Your task to perform on an android device: Do I have any events tomorrow? Image 0: 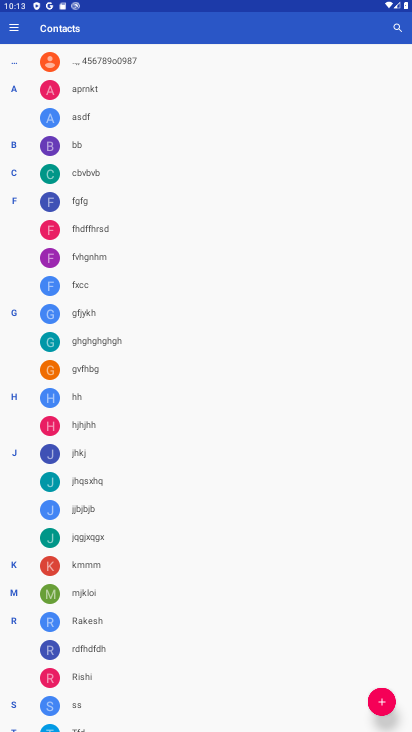
Step 0: press home button
Your task to perform on an android device: Do I have any events tomorrow? Image 1: 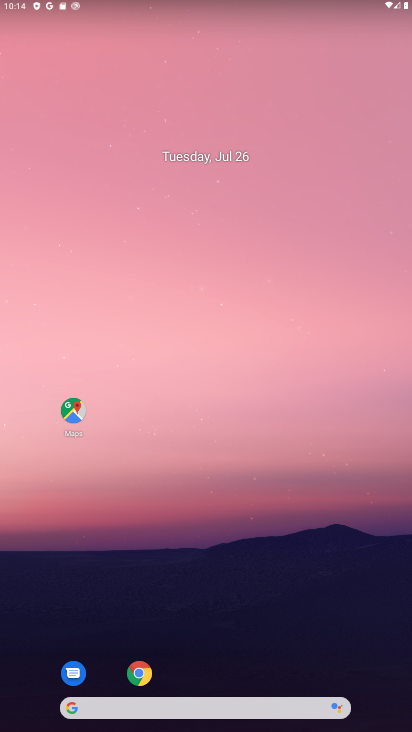
Step 1: drag from (278, 650) to (228, 262)
Your task to perform on an android device: Do I have any events tomorrow? Image 2: 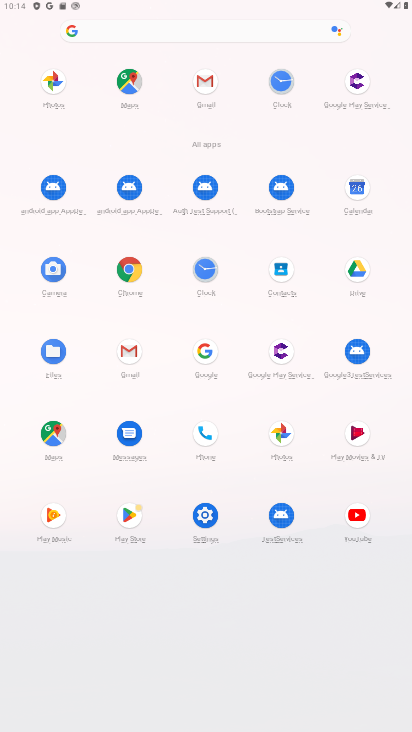
Step 2: click (358, 198)
Your task to perform on an android device: Do I have any events tomorrow? Image 3: 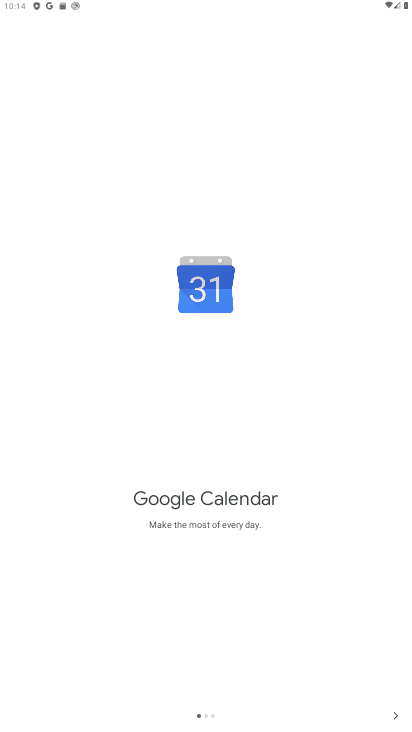
Step 3: click (393, 716)
Your task to perform on an android device: Do I have any events tomorrow? Image 4: 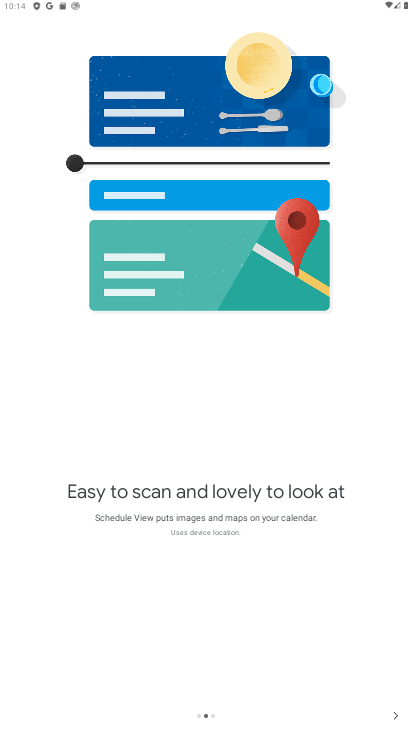
Step 4: click (393, 716)
Your task to perform on an android device: Do I have any events tomorrow? Image 5: 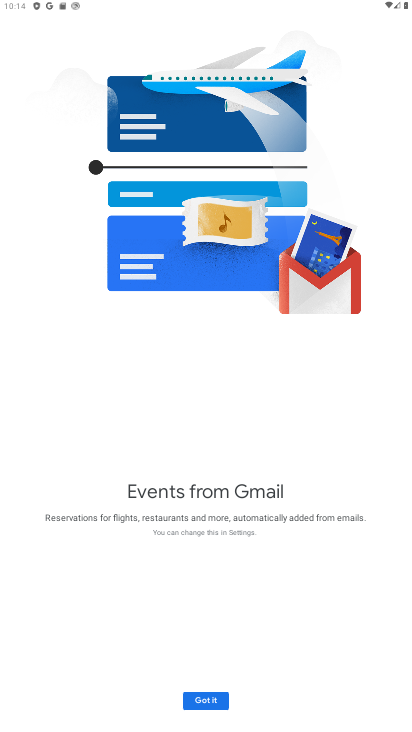
Step 5: click (197, 700)
Your task to perform on an android device: Do I have any events tomorrow? Image 6: 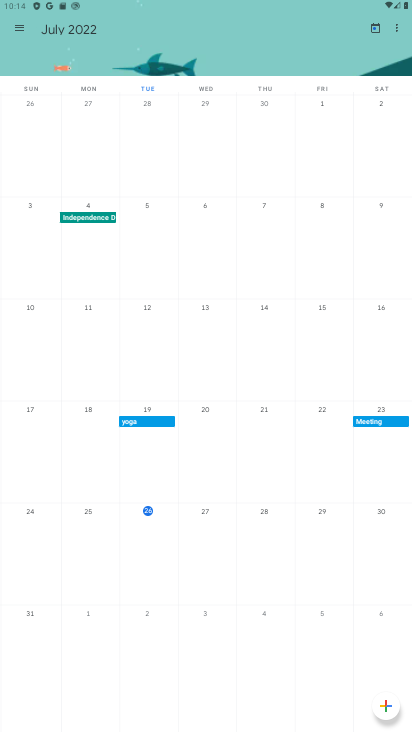
Step 6: click (18, 34)
Your task to perform on an android device: Do I have any events tomorrow? Image 7: 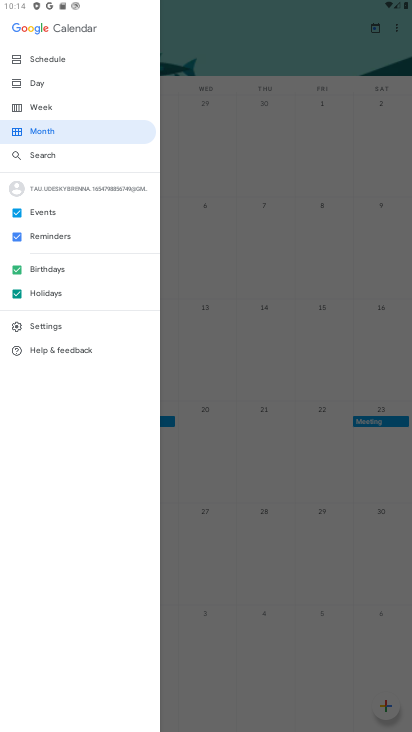
Step 7: click (14, 289)
Your task to perform on an android device: Do I have any events tomorrow? Image 8: 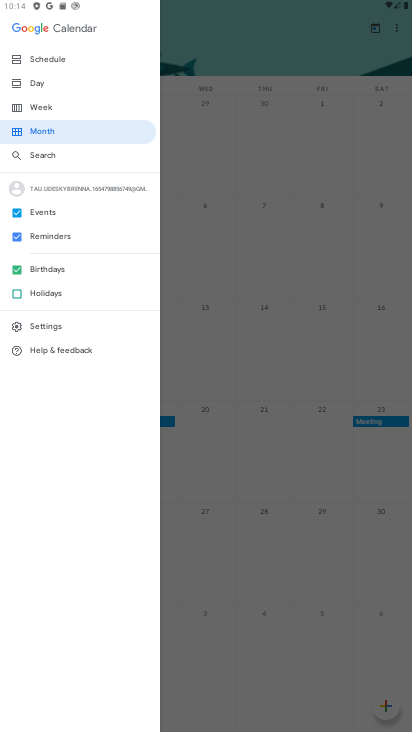
Step 8: click (14, 269)
Your task to perform on an android device: Do I have any events tomorrow? Image 9: 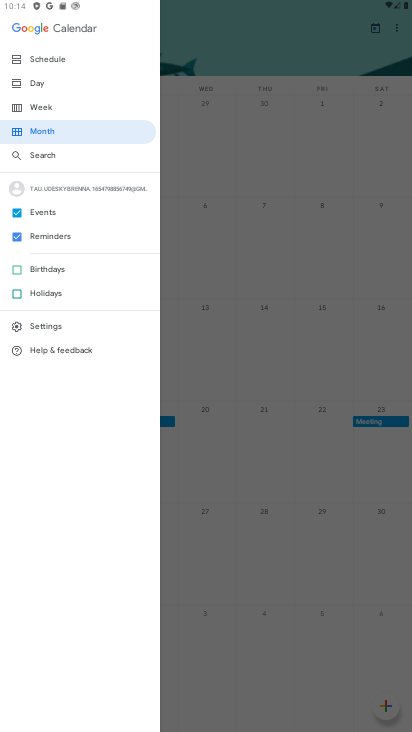
Step 9: click (17, 229)
Your task to perform on an android device: Do I have any events tomorrow? Image 10: 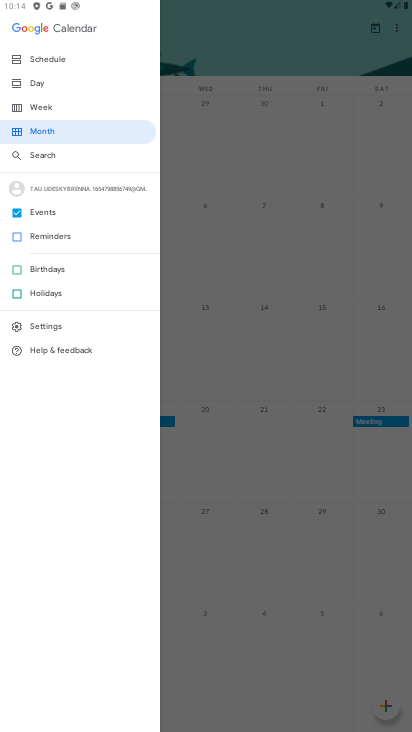
Step 10: click (35, 81)
Your task to perform on an android device: Do I have any events tomorrow? Image 11: 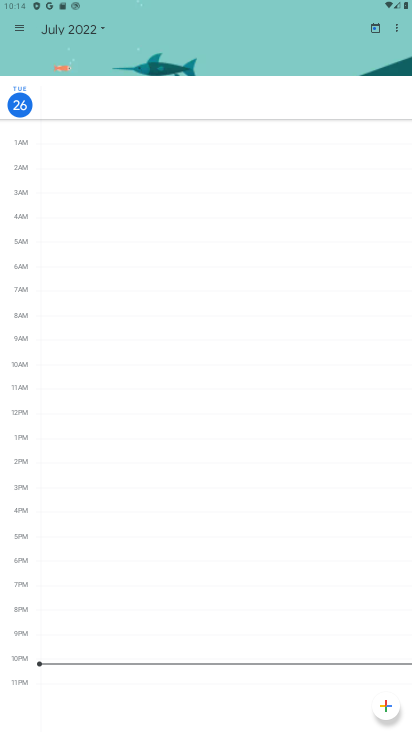
Step 11: task complete